Your task to perform on an android device: search for starred emails in the gmail app Image 0: 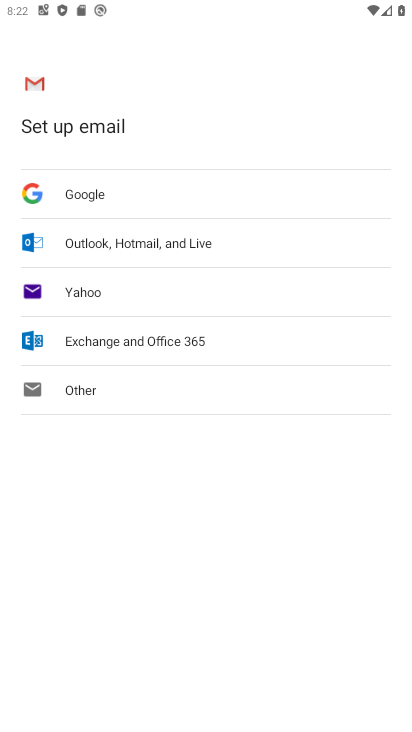
Step 0: press home button
Your task to perform on an android device: search for starred emails in the gmail app Image 1: 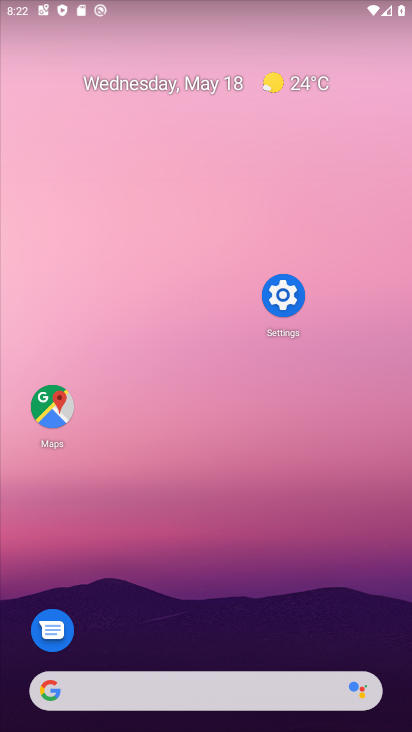
Step 1: drag from (189, 668) to (171, 263)
Your task to perform on an android device: search for starred emails in the gmail app Image 2: 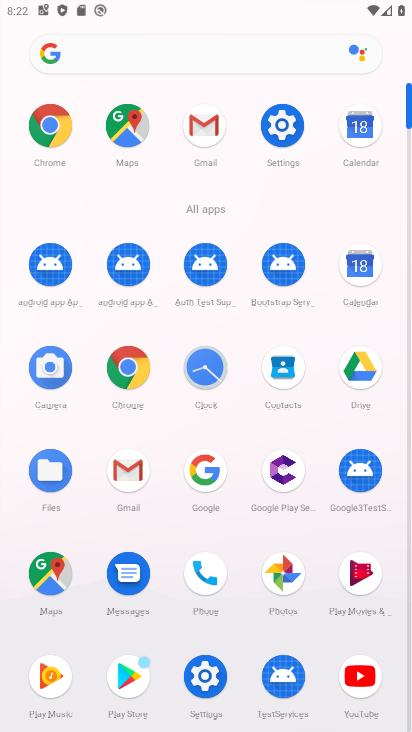
Step 2: click (210, 132)
Your task to perform on an android device: search for starred emails in the gmail app Image 3: 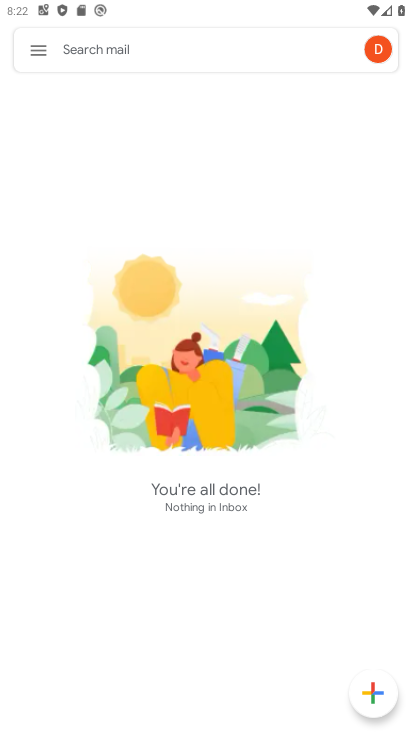
Step 3: click (39, 40)
Your task to perform on an android device: search for starred emails in the gmail app Image 4: 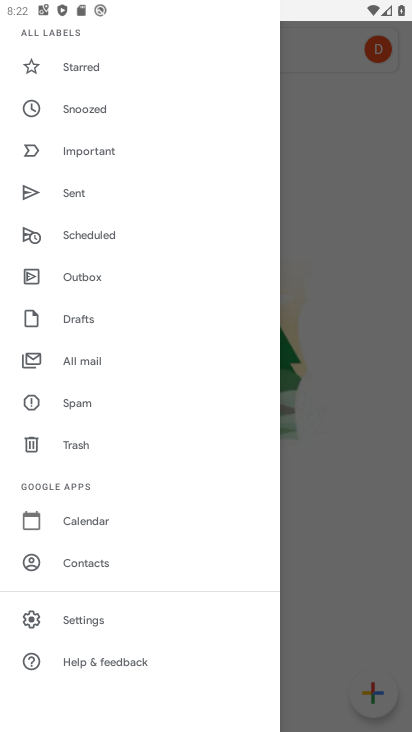
Step 4: click (92, 61)
Your task to perform on an android device: search for starred emails in the gmail app Image 5: 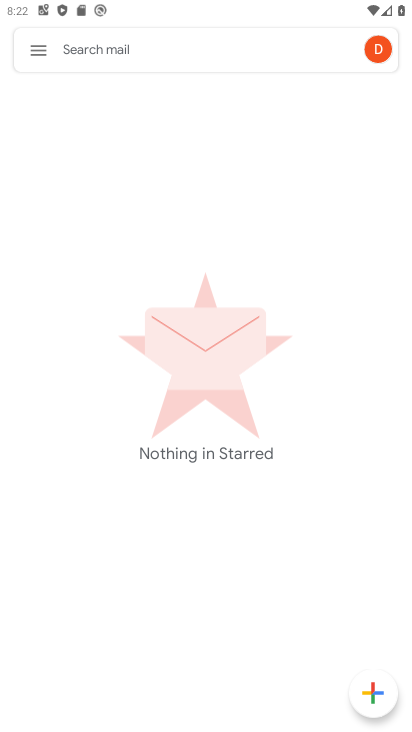
Step 5: task complete